Your task to perform on an android device: turn off location history Image 0: 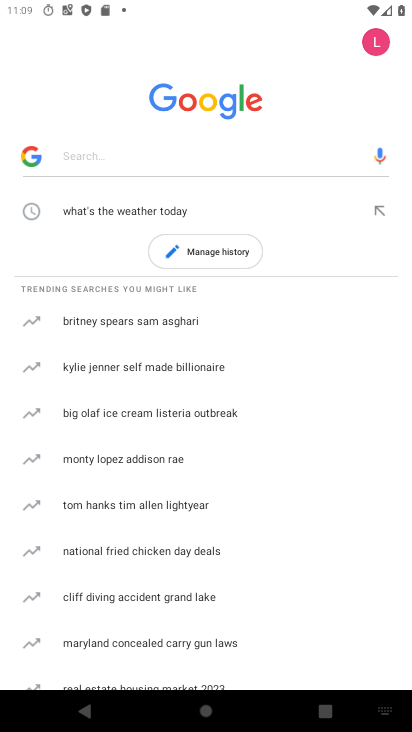
Step 0: press home button
Your task to perform on an android device: turn off location history Image 1: 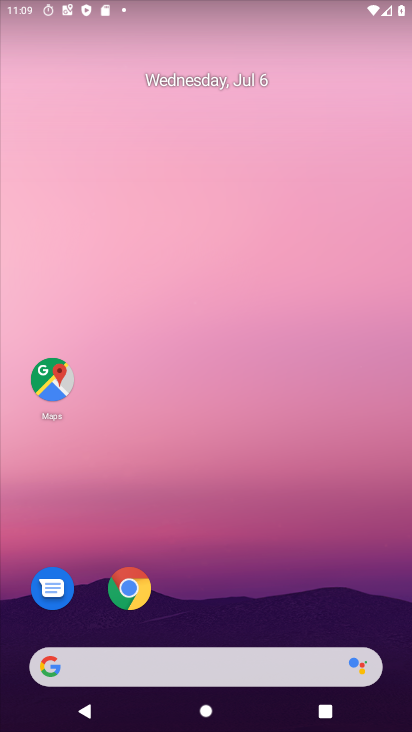
Step 1: drag from (266, 712) to (241, 519)
Your task to perform on an android device: turn off location history Image 2: 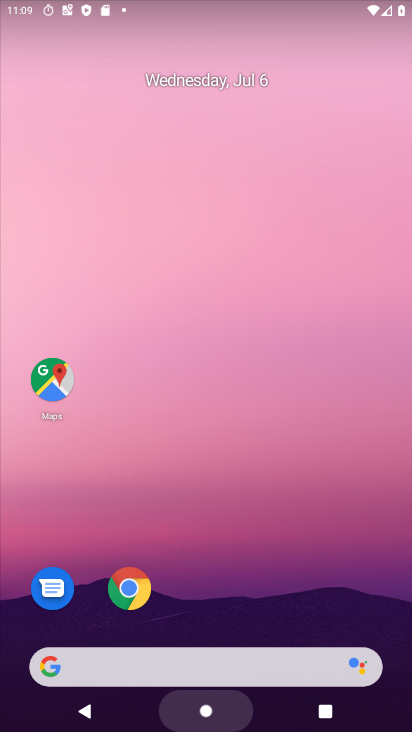
Step 2: click (194, 126)
Your task to perform on an android device: turn off location history Image 3: 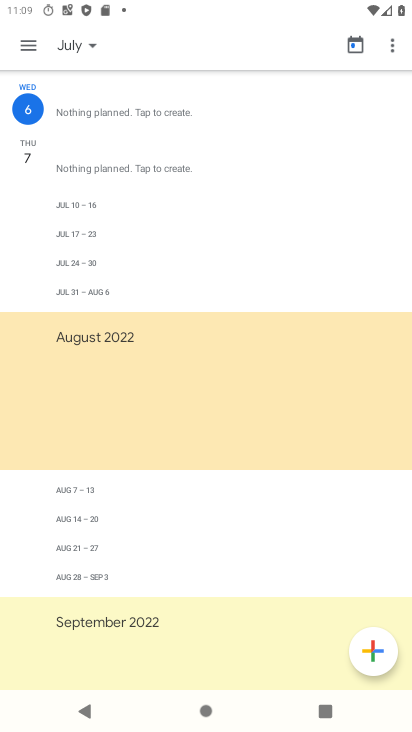
Step 3: press home button
Your task to perform on an android device: turn off location history Image 4: 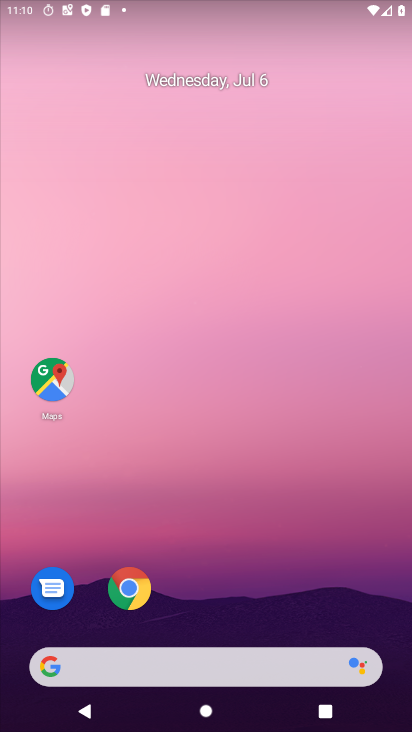
Step 4: drag from (234, 646) to (234, 567)
Your task to perform on an android device: turn off location history Image 5: 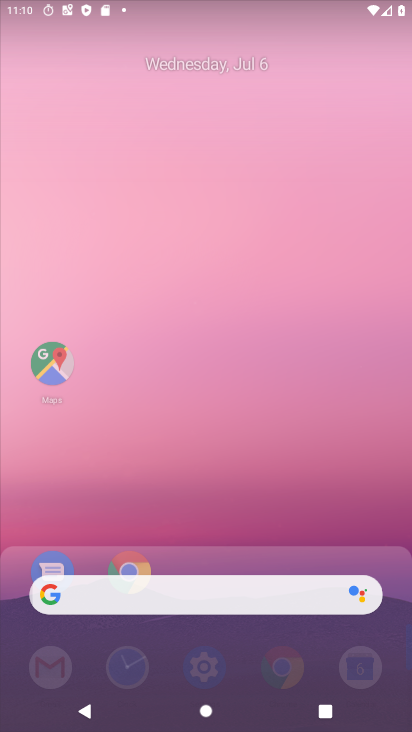
Step 5: drag from (213, 136) to (213, 102)
Your task to perform on an android device: turn off location history Image 6: 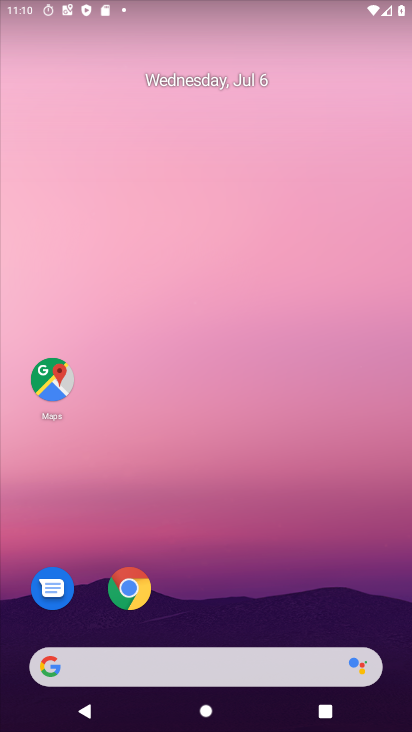
Step 6: drag from (238, 727) to (174, 110)
Your task to perform on an android device: turn off location history Image 7: 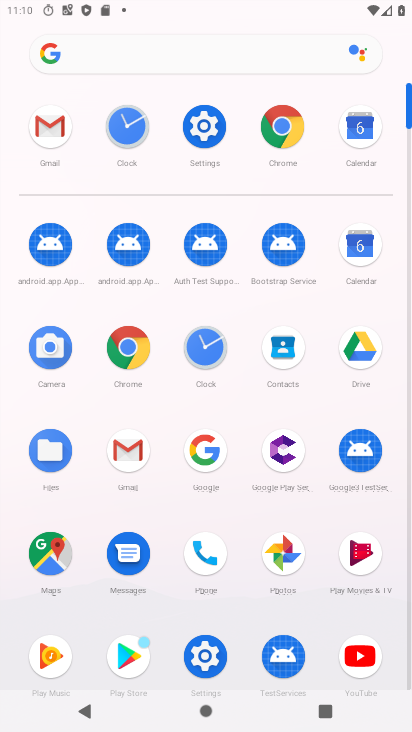
Step 7: click (216, 126)
Your task to perform on an android device: turn off location history Image 8: 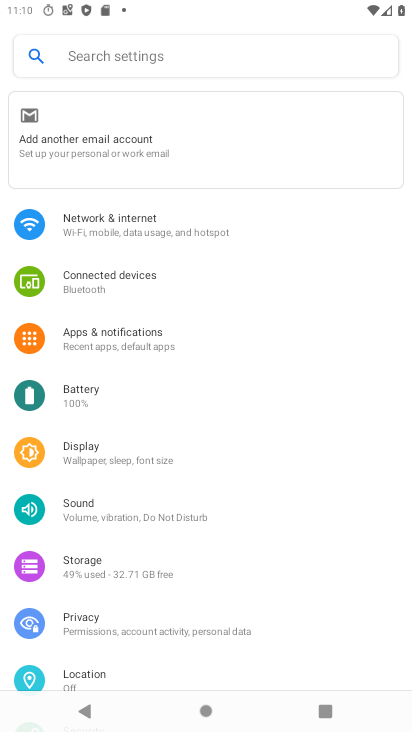
Step 8: click (102, 676)
Your task to perform on an android device: turn off location history Image 9: 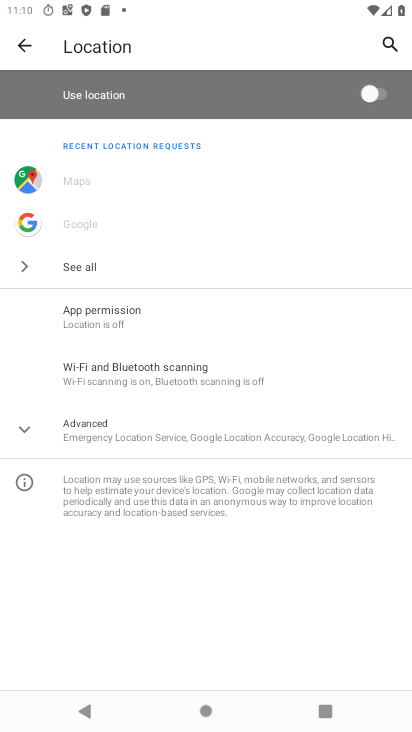
Step 9: click (146, 423)
Your task to perform on an android device: turn off location history Image 10: 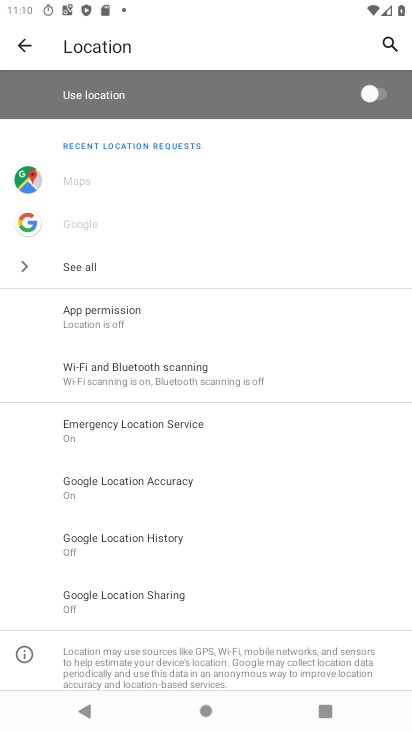
Step 10: click (150, 537)
Your task to perform on an android device: turn off location history Image 11: 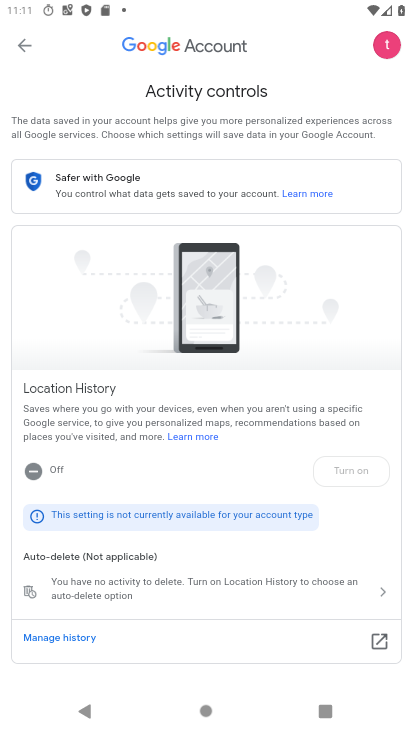
Step 11: task complete